Your task to perform on an android device: Open location settings Image 0: 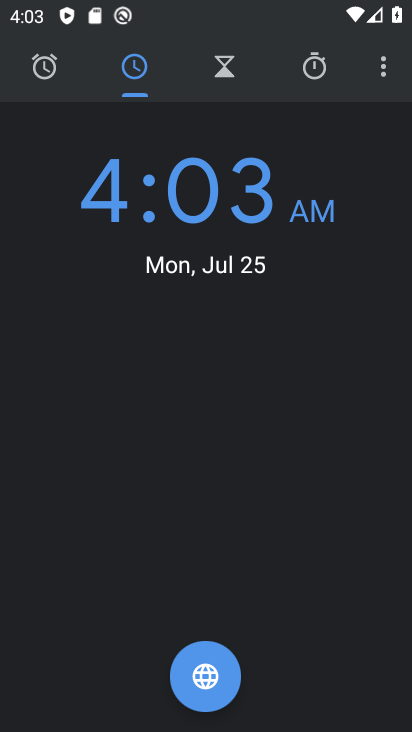
Step 0: press home button
Your task to perform on an android device: Open location settings Image 1: 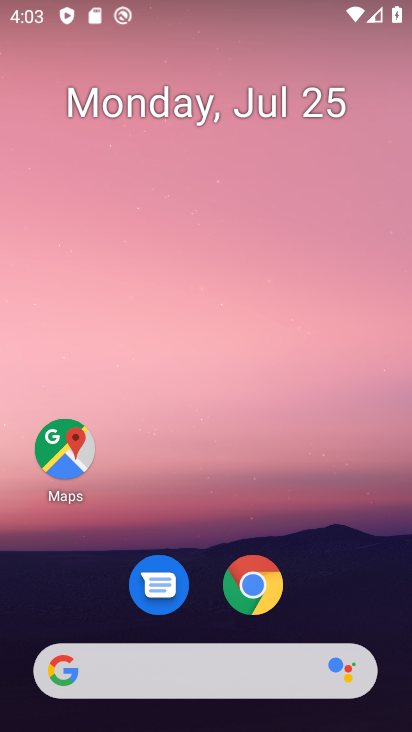
Step 1: drag from (320, 607) to (351, 52)
Your task to perform on an android device: Open location settings Image 2: 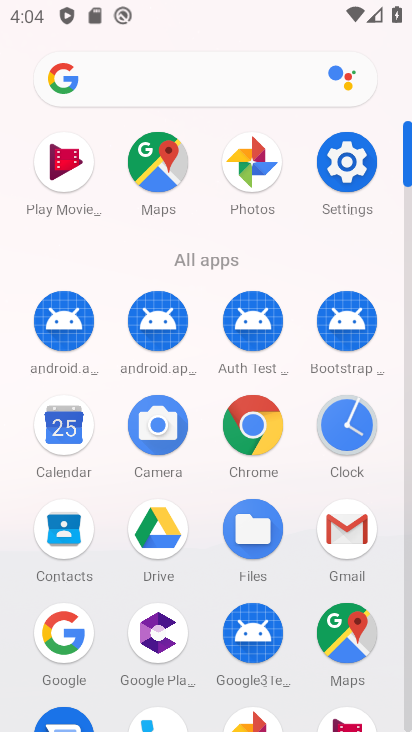
Step 2: click (351, 166)
Your task to perform on an android device: Open location settings Image 3: 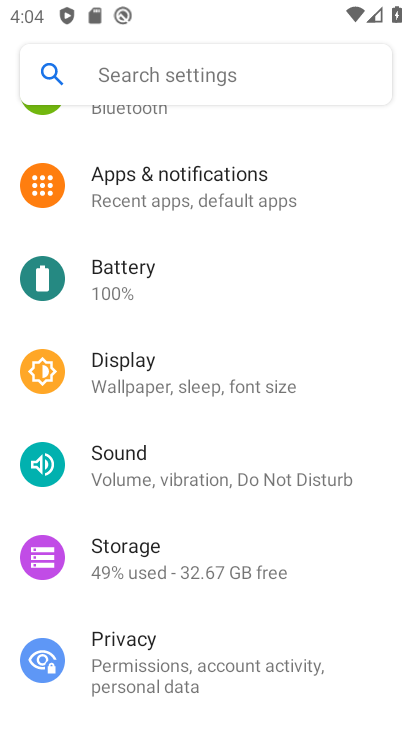
Step 3: drag from (228, 622) to (261, 148)
Your task to perform on an android device: Open location settings Image 4: 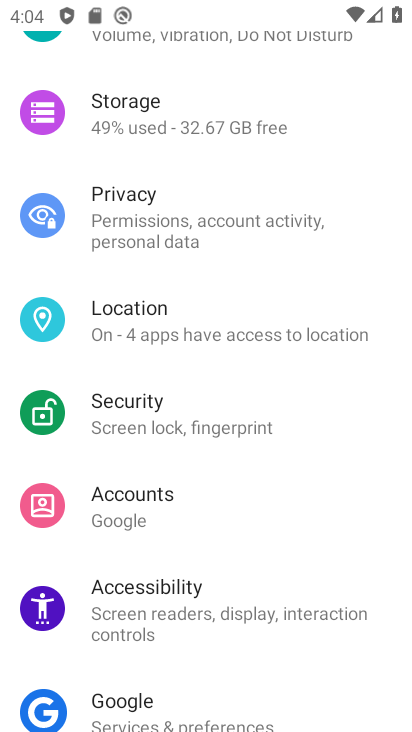
Step 4: click (220, 323)
Your task to perform on an android device: Open location settings Image 5: 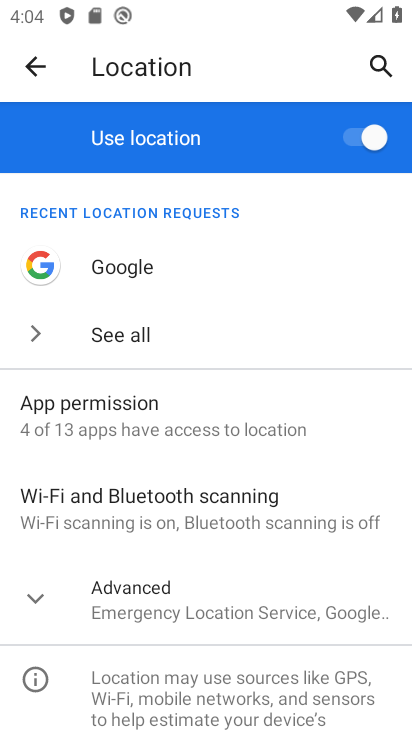
Step 5: task complete